Your task to perform on an android device: uninstall "WhatsApp Messenger" Image 0: 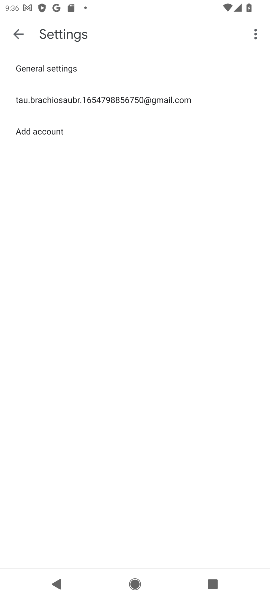
Step 0: press home button
Your task to perform on an android device: uninstall "WhatsApp Messenger" Image 1: 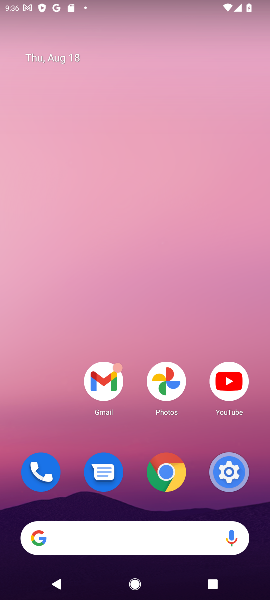
Step 1: drag from (238, 429) to (158, 125)
Your task to perform on an android device: uninstall "WhatsApp Messenger" Image 2: 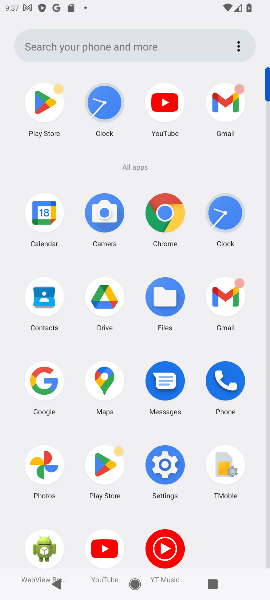
Step 2: click (107, 473)
Your task to perform on an android device: uninstall "WhatsApp Messenger" Image 3: 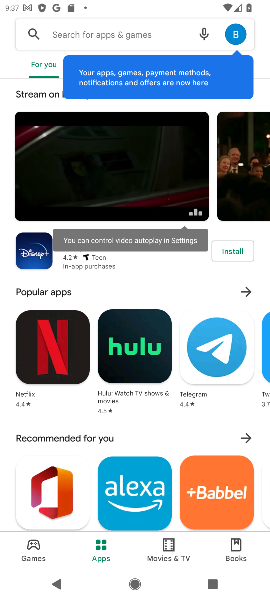
Step 3: click (156, 39)
Your task to perform on an android device: uninstall "WhatsApp Messenger" Image 4: 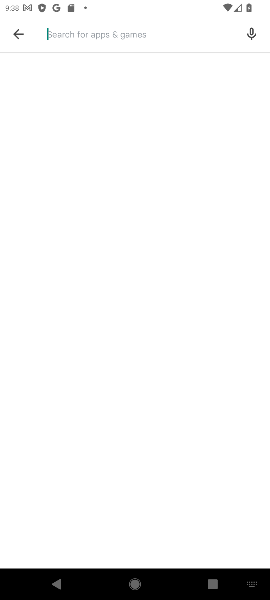
Step 4: type "whatsapp messenger"
Your task to perform on an android device: uninstall "WhatsApp Messenger" Image 5: 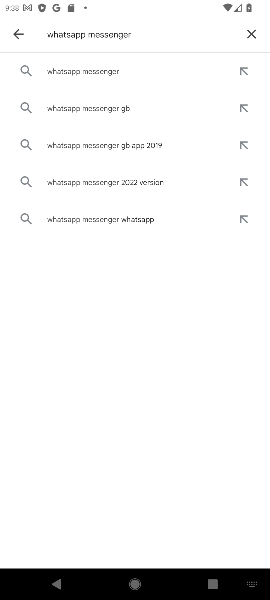
Step 5: click (117, 69)
Your task to perform on an android device: uninstall "WhatsApp Messenger" Image 6: 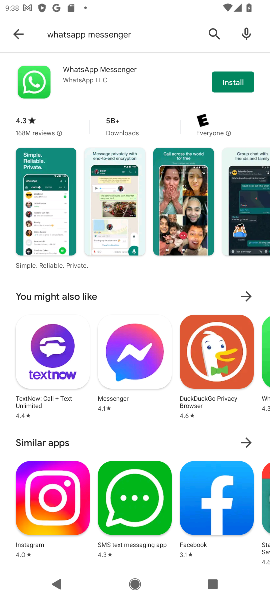
Step 6: task complete